Your task to perform on an android device: Open Google Chrome and click the shortcut for Amazon.com Image 0: 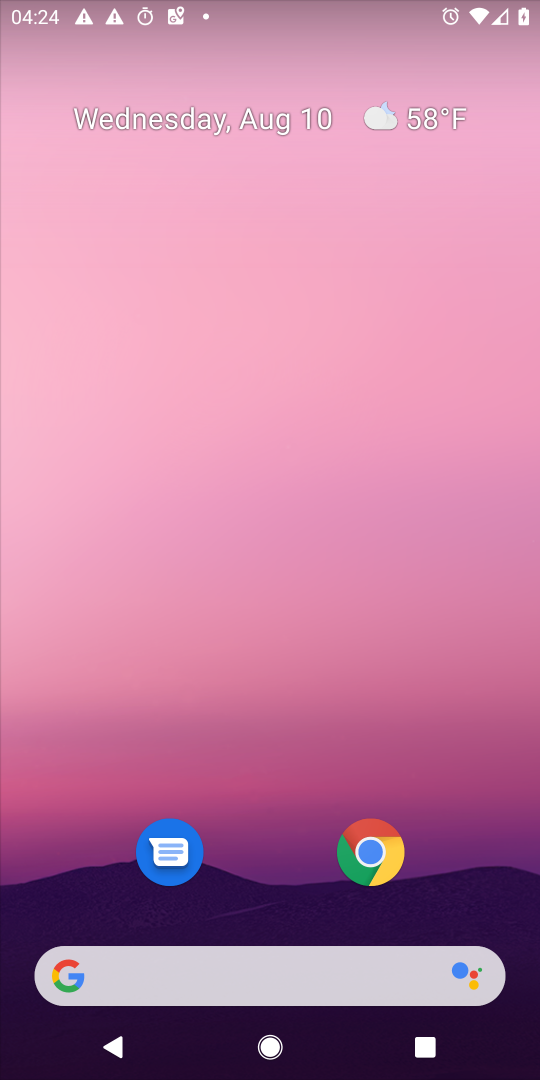
Step 0: drag from (244, 896) to (206, 341)
Your task to perform on an android device: Open Google Chrome and click the shortcut for Amazon.com Image 1: 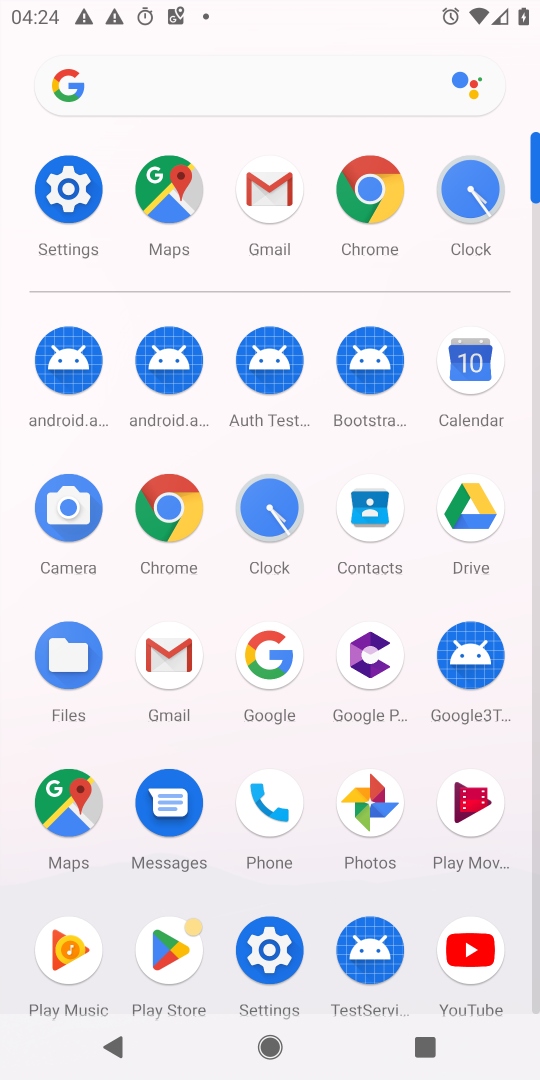
Step 1: click (169, 504)
Your task to perform on an android device: Open Google Chrome and click the shortcut for Amazon.com Image 2: 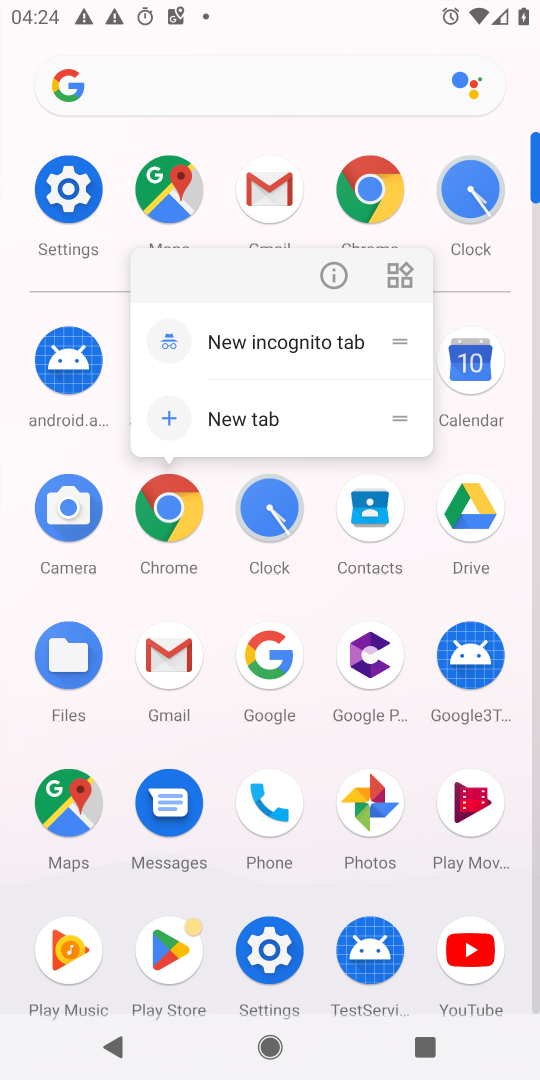
Step 2: click (169, 504)
Your task to perform on an android device: Open Google Chrome and click the shortcut for Amazon.com Image 3: 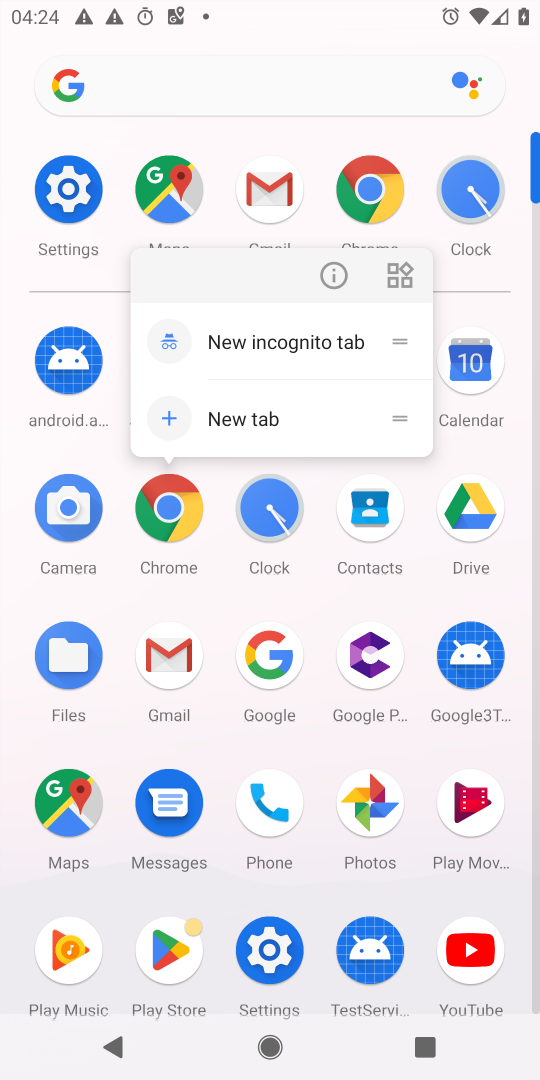
Step 3: click (172, 512)
Your task to perform on an android device: Open Google Chrome and click the shortcut for Amazon.com Image 4: 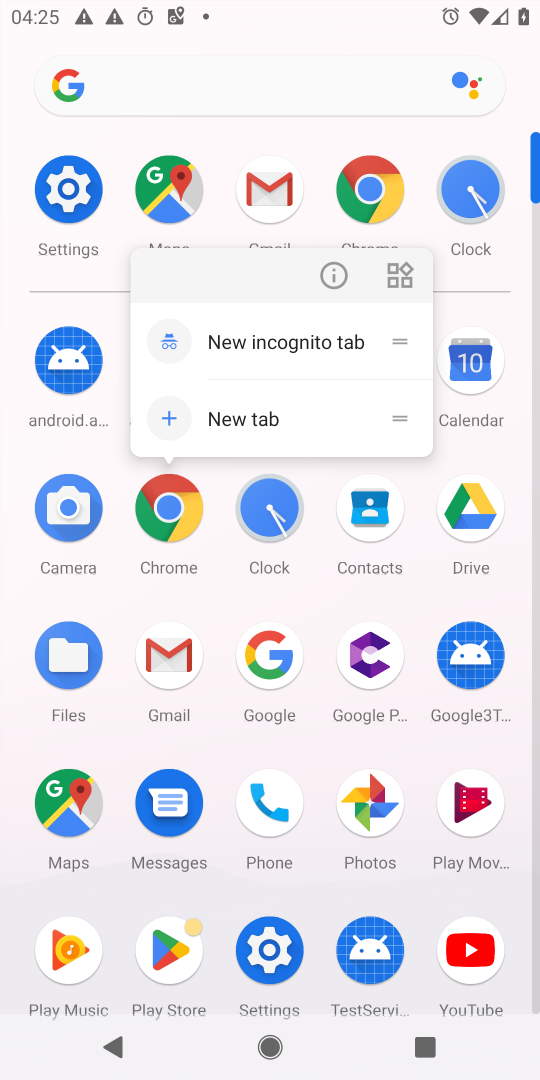
Step 4: click (219, 591)
Your task to perform on an android device: Open Google Chrome and click the shortcut for Amazon.com Image 5: 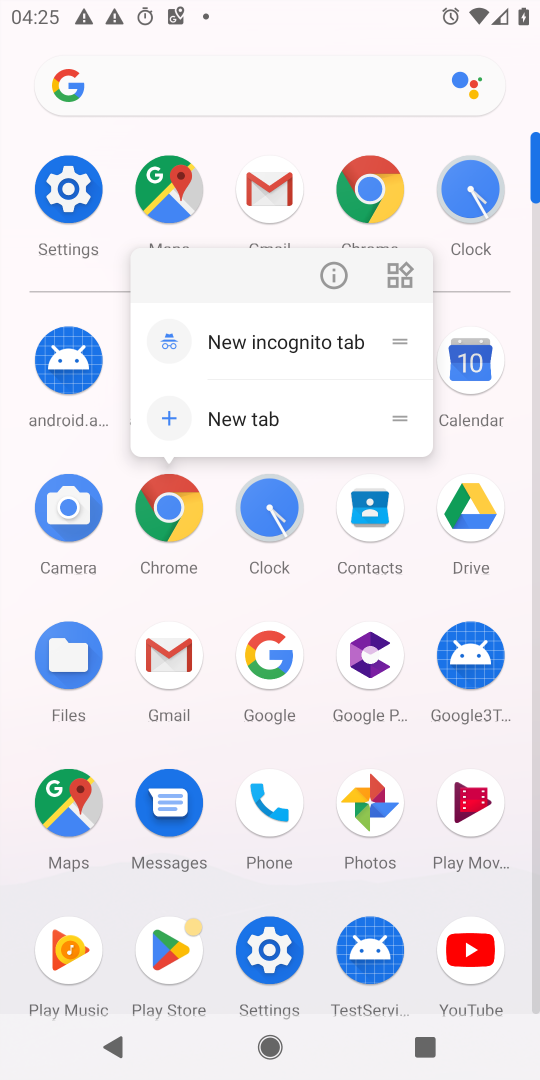
Step 5: click (165, 508)
Your task to perform on an android device: Open Google Chrome and click the shortcut for Amazon.com Image 6: 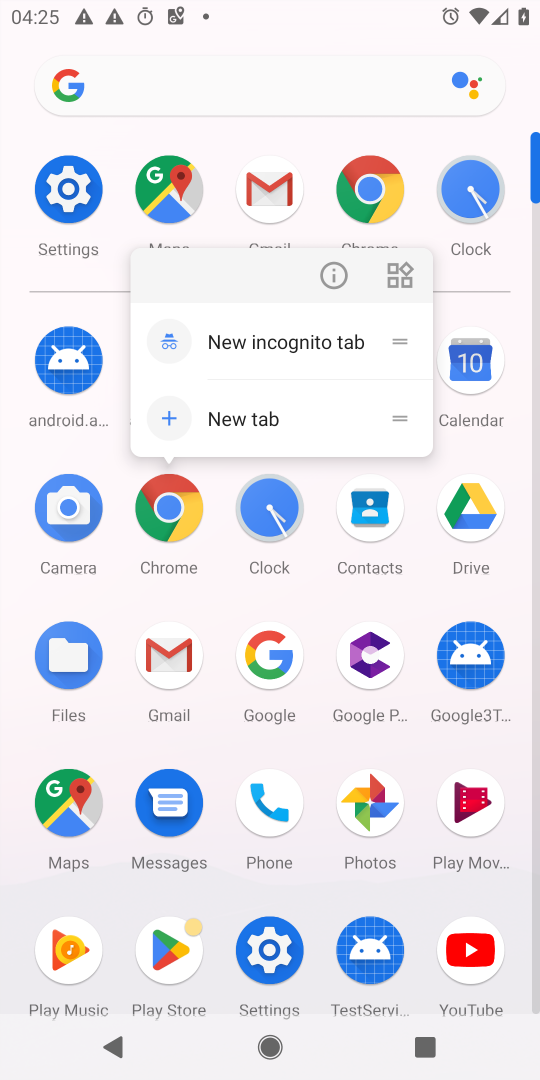
Step 6: click (212, 569)
Your task to perform on an android device: Open Google Chrome and click the shortcut for Amazon.com Image 7: 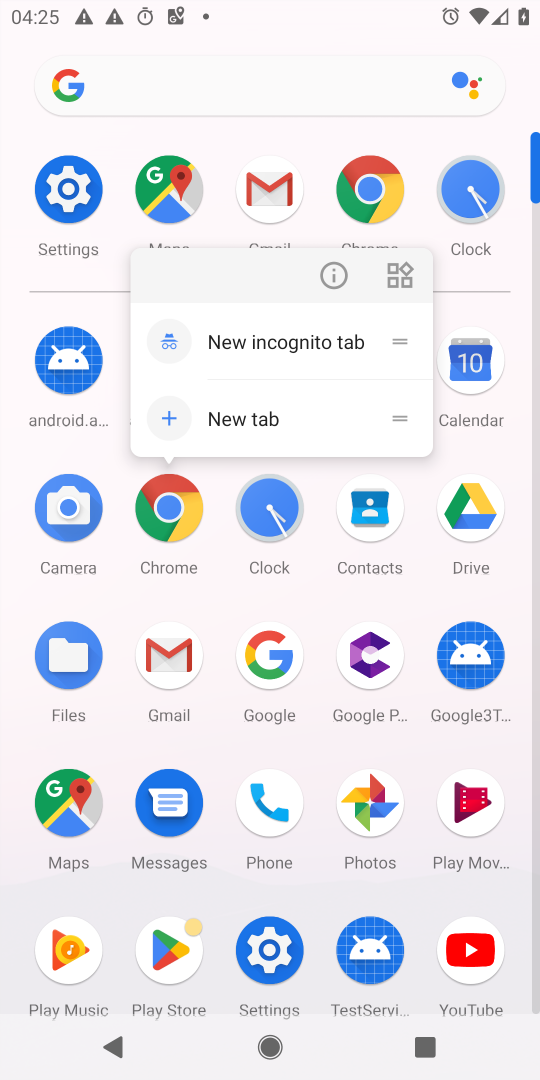
Step 7: click (227, 582)
Your task to perform on an android device: Open Google Chrome and click the shortcut for Amazon.com Image 8: 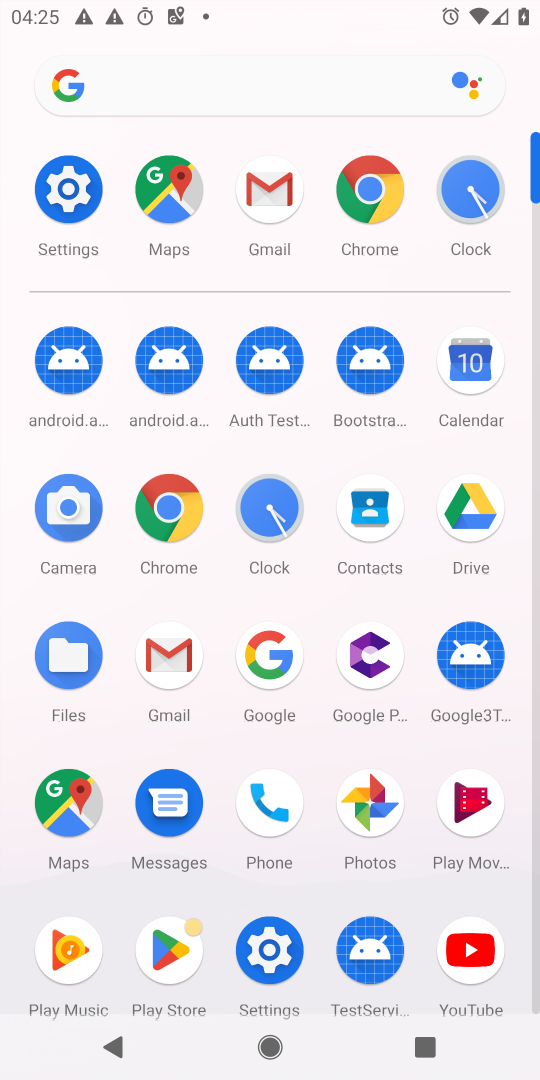
Step 8: click (175, 500)
Your task to perform on an android device: Open Google Chrome and click the shortcut for Amazon.com Image 9: 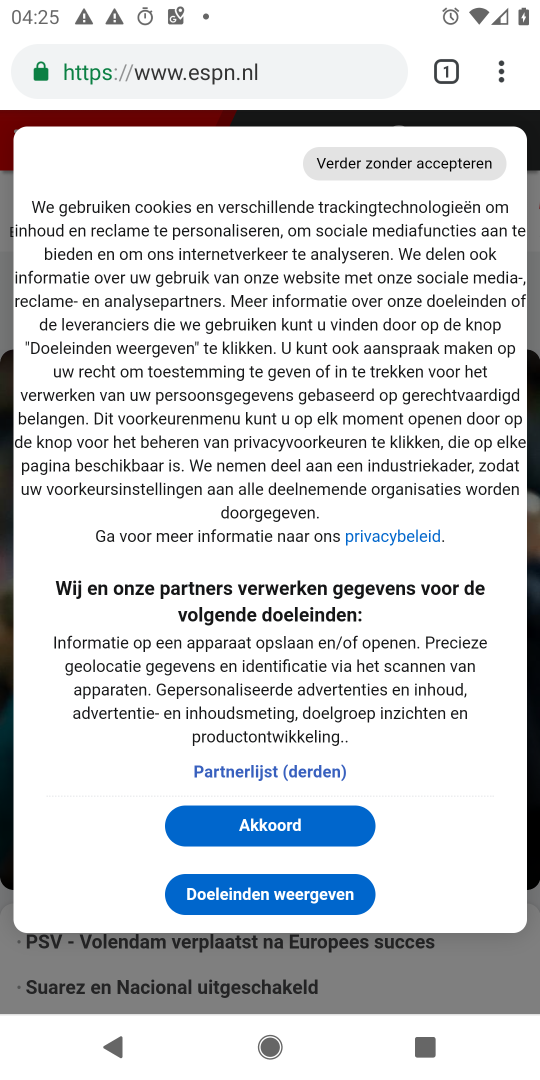
Step 9: drag from (516, 67) to (245, 142)
Your task to perform on an android device: Open Google Chrome and click the shortcut for Amazon.com Image 10: 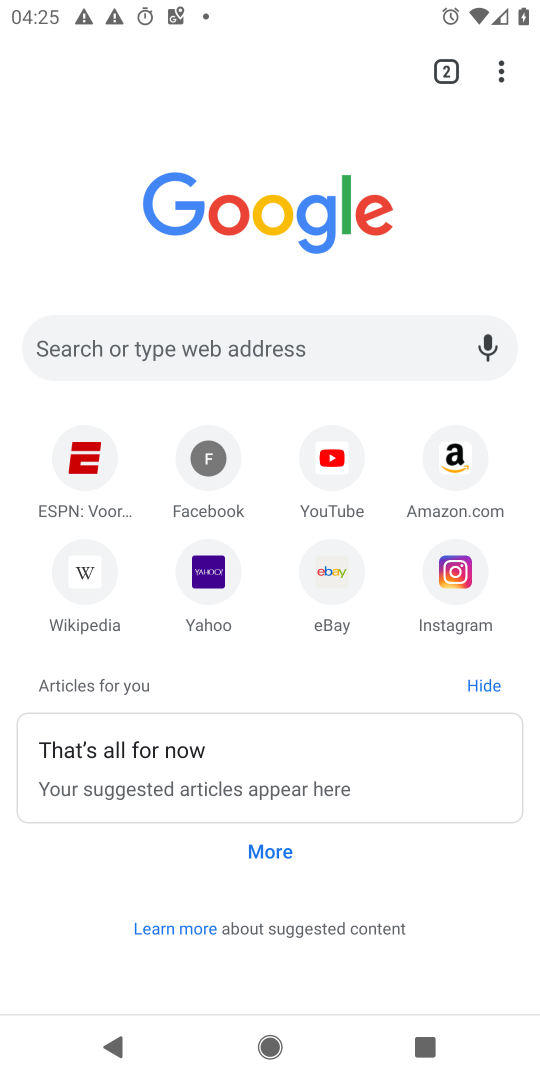
Step 10: click (456, 447)
Your task to perform on an android device: Open Google Chrome and click the shortcut for Amazon.com Image 11: 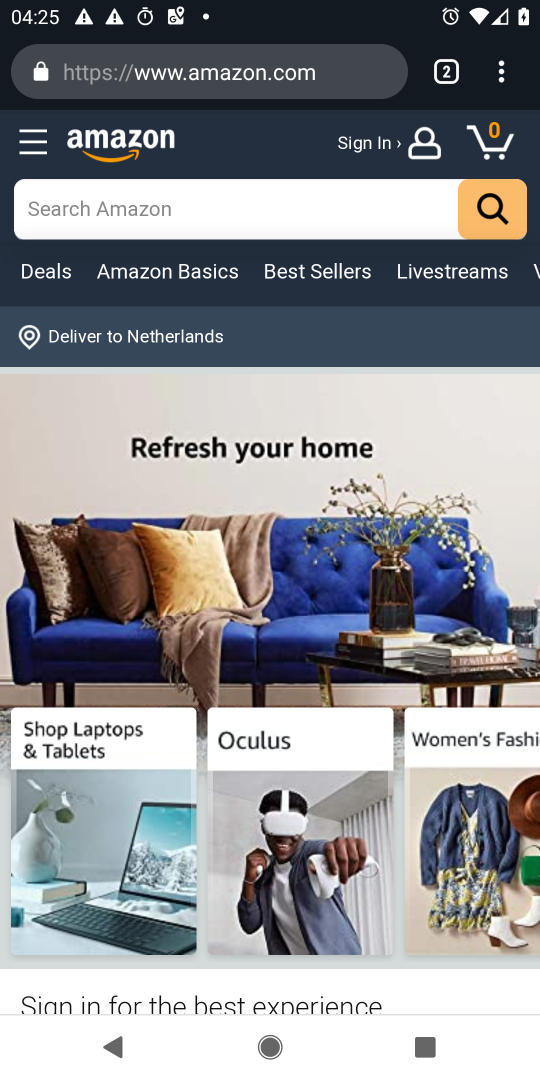
Step 11: task complete